Your task to perform on an android device: turn on wifi Image 0: 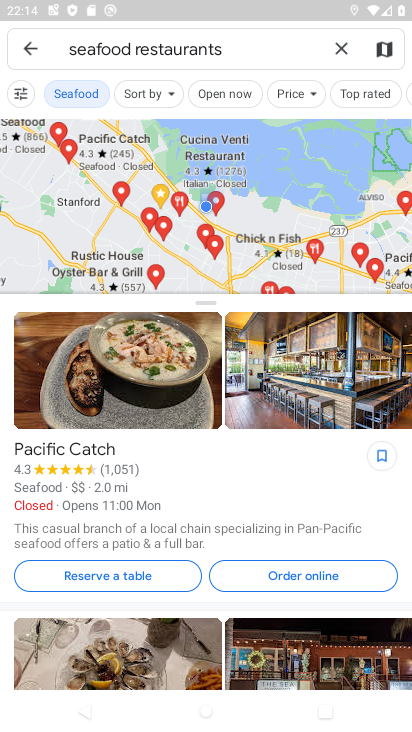
Step 0: press home button
Your task to perform on an android device: turn on wifi Image 1: 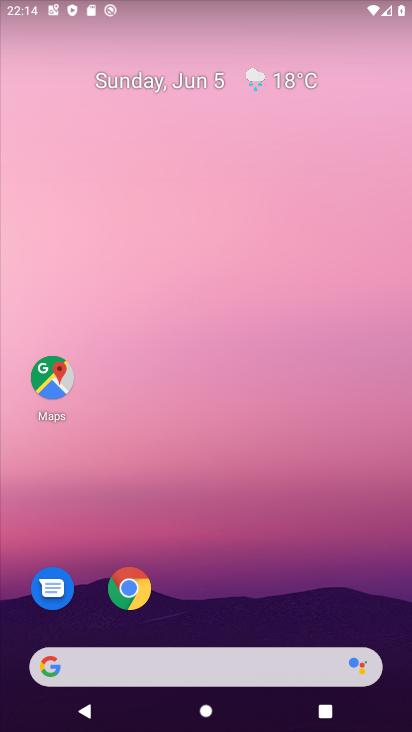
Step 1: drag from (359, 589) to (353, 228)
Your task to perform on an android device: turn on wifi Image 2: 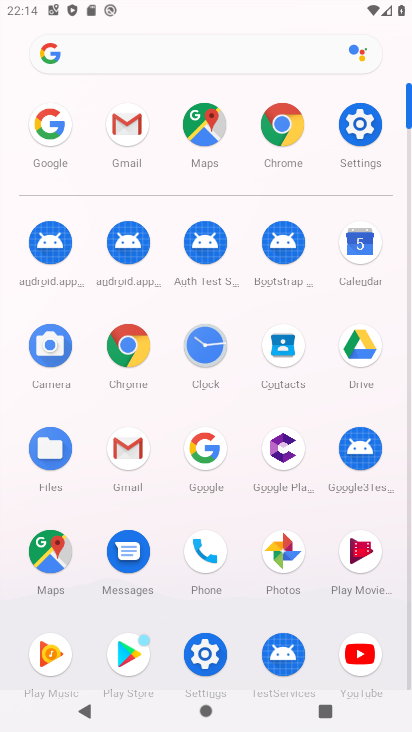
Step 2: click (361, 140)
Your task to perform on an android device: turn on wifi Image 3: 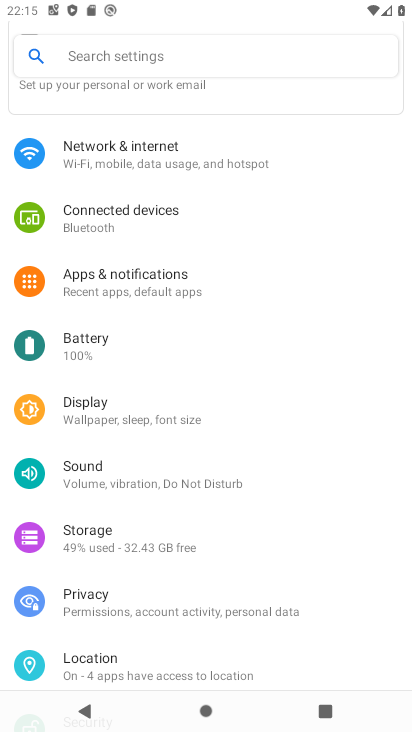
Step 3: drag from (370, 418) to (316, 216)
Your task to perform on an android device: turn on wifi Image 4: 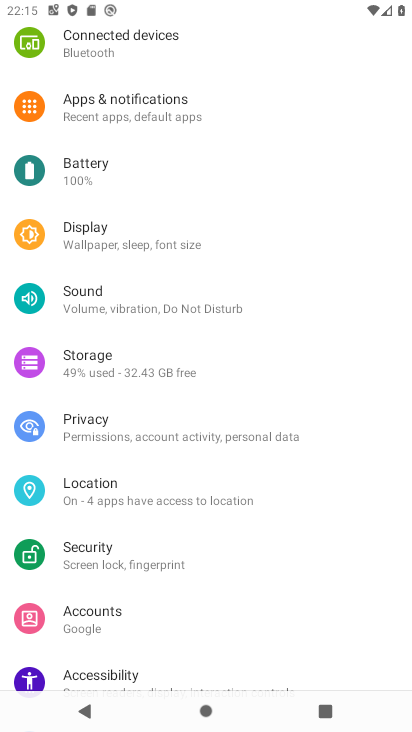
Step 4: drag from (342, 495) to (349, 343)
Your task to perform on an android device: turn on wifi Image 5: 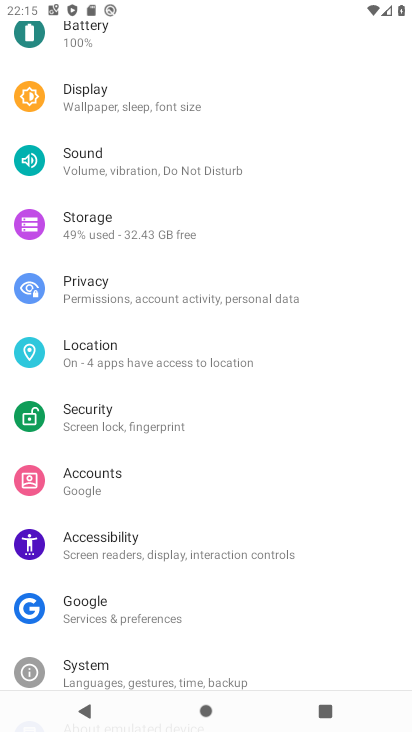
Step 5: drag from (322, 488) to (324, 338)
Your task to perform on an android device: turn on wifi Image 6: 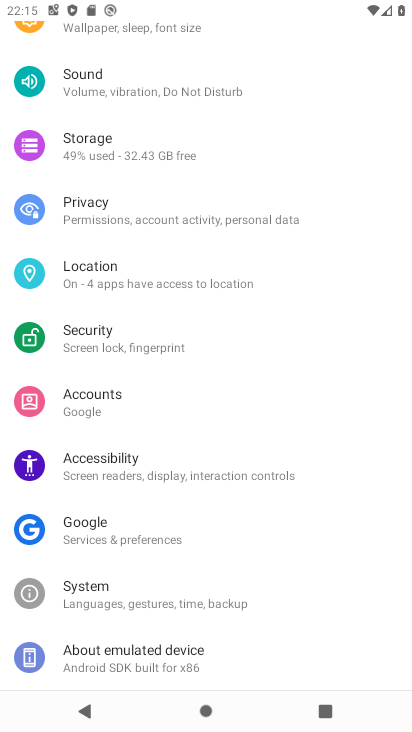
Step 6: drag from (344, 239) to (348, 338)
Your task to perform on an android device: turn on wifi Image 7: 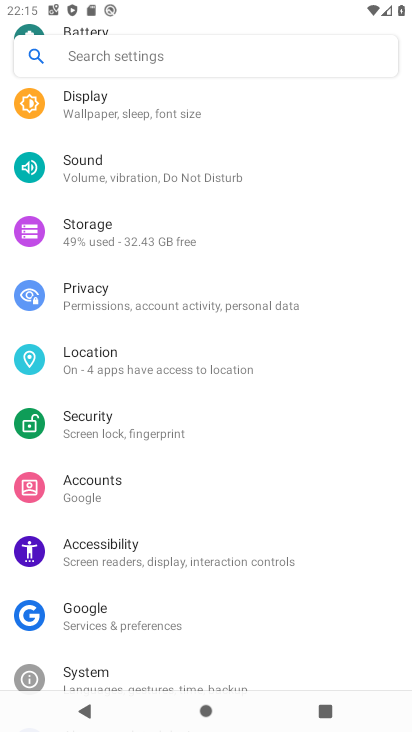
Step 7: drag from (358, 196) to (349, 317)
Your task to perform on an android device: turn on wifi Image 8: 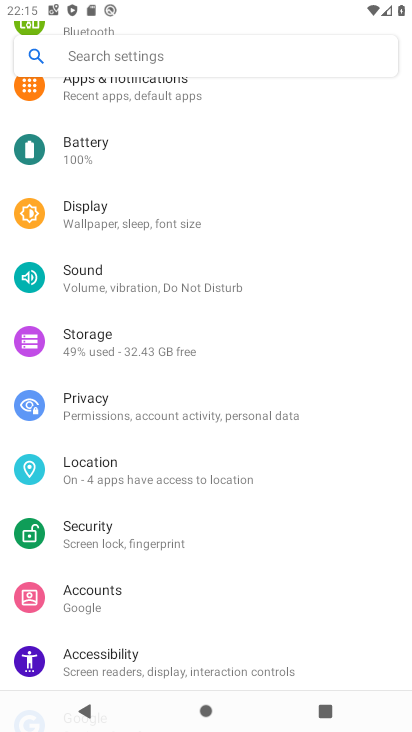
Step 8: drag from (346, 187) to (346, 307)
Your task to perform on an android device: turn on wifi Image 9: 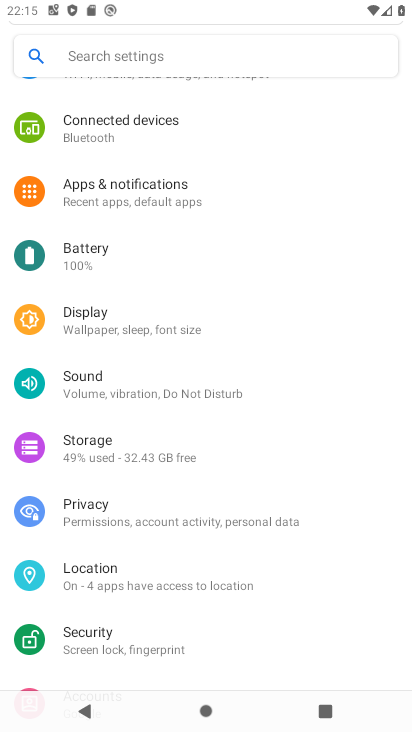
Step 9: drag from (368, 221) to (354, 352)
Your task to perform on an android device: turn on wifi Image 10: 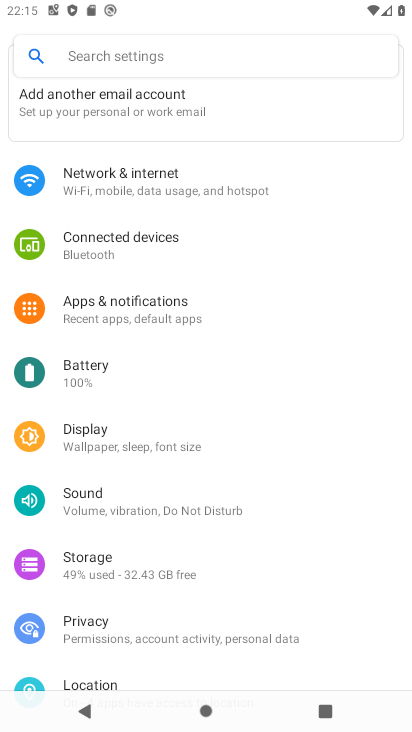
Step 10: click (241, 191)
Your task to perform on an android device: turn on wifi Image 11: 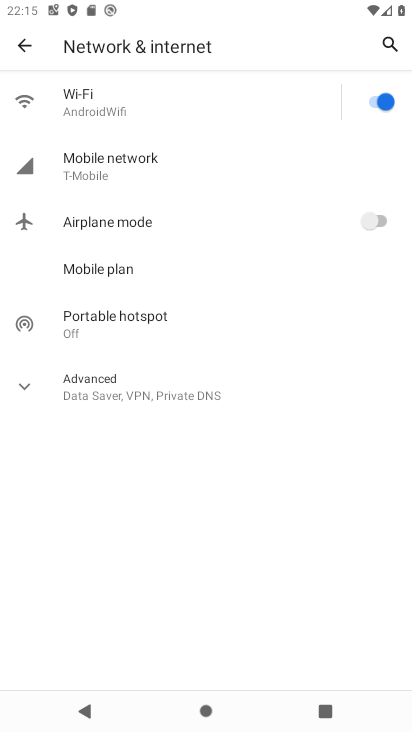
Step 11: task complete